Your task to perform on an android device: make emails show in primary in the gmail app Image 0: 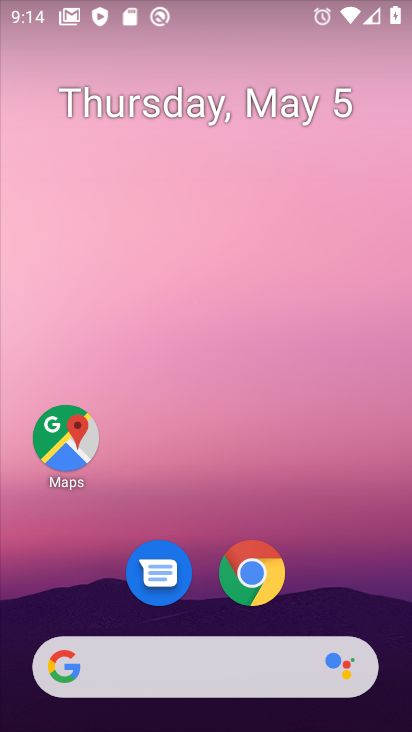
Step 0: drag from (179, 597) to (335, 51)
Your task to perform on an android device: make emails show in primary in the gmail app Image 1: 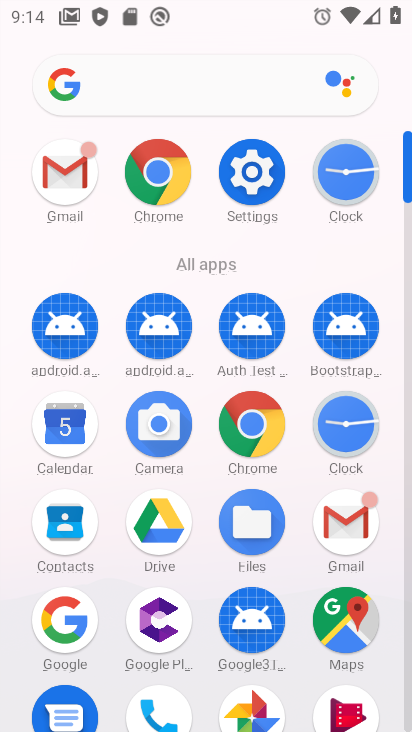
Step 1: click (64, 179)
Your task to perform on an android device: make emails show in primary in the gmail app Image 2: 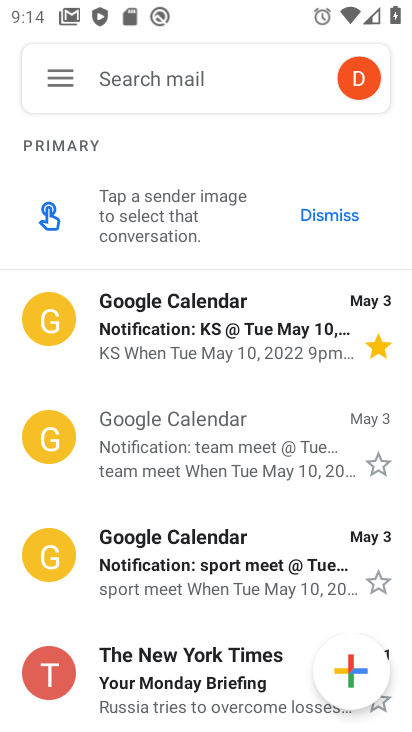
Step 2: click (53, 72)
Your task to perform on an android device: make emails show in primary in the gmail app Image 3: 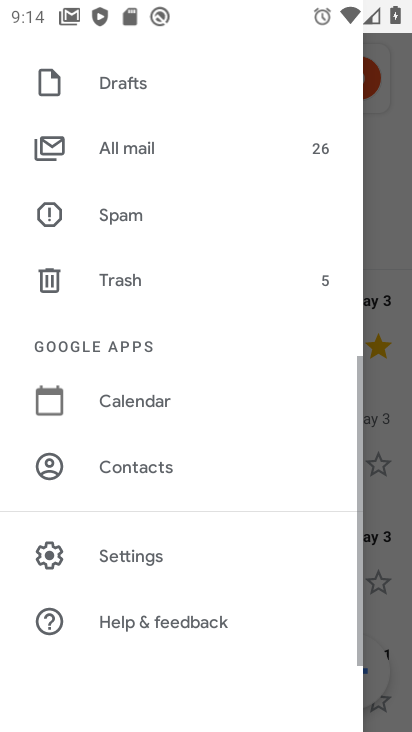
Step 3: click (170, 547)
Your task to perform on an android device: make emails show in primary in the gmail app Image 4: 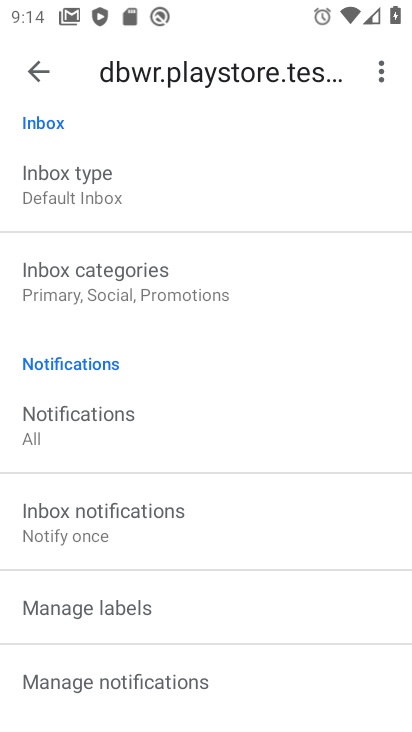
Step 4: click (156, 283)
Your task to perform on an android device: make emails show in primary in the gmail app Image 5: 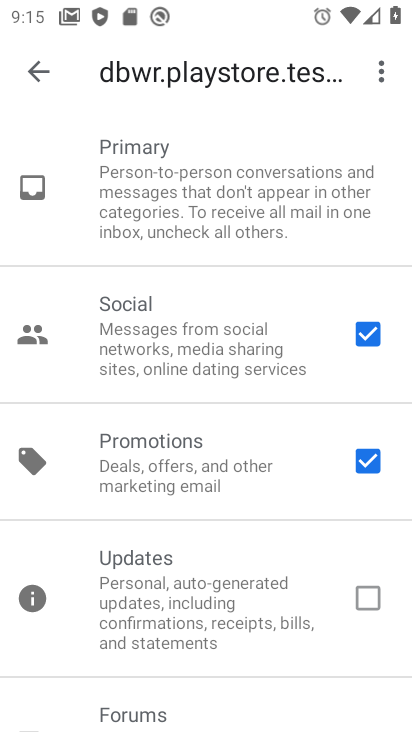
Step 5: drag from (220, 618) to (320, 160)
Your task to perform on an android device: make emails show in primary in the gmail app Image 6: 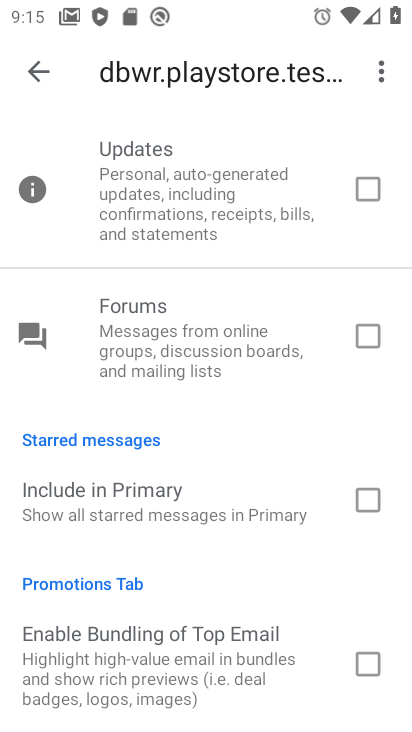
Step 6: click (370, 502)
Your task to perform on an android device: make emails show in primary in the gmail app Image 7: 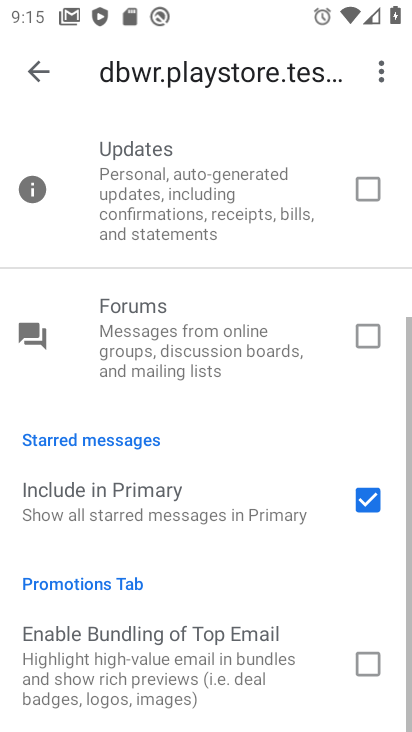
Step 7: click (363, 329)
Your task to perform on an android device: make emails show in primary in the gmail app Image 8: 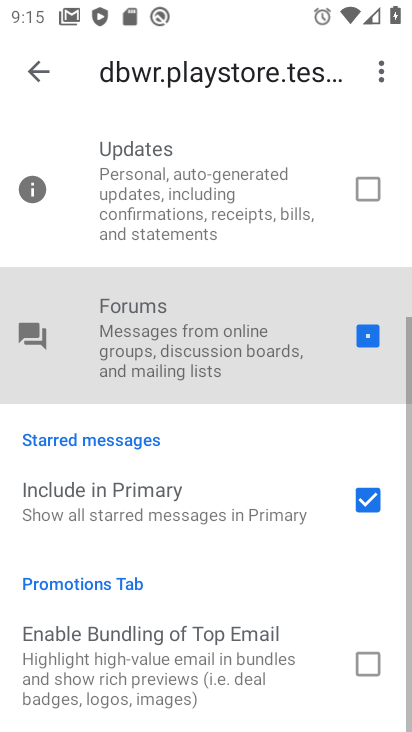
Step 8: click (354, 177)
Your task to perform on an android device: make emails show in primary in the gmail app Image 9: 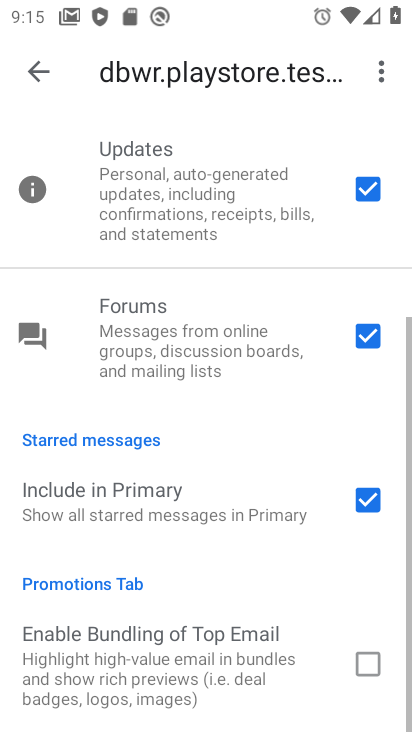
Step 9: task complete